Your task to perform on an android device: uninstall "Microsoft Authenticator" Image 0: 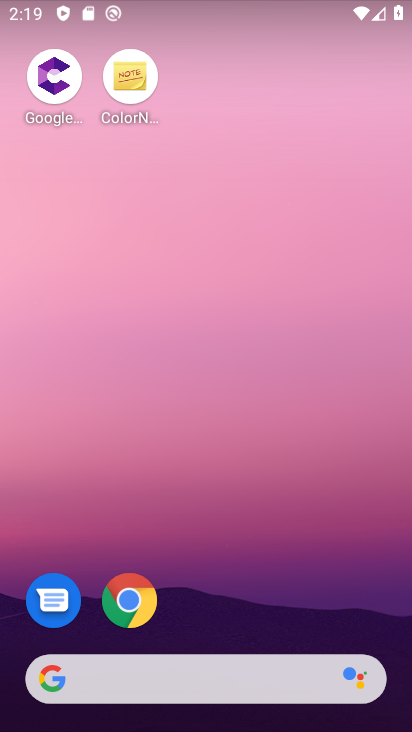
Step 0: drag from (199, 595) to (278, 46)
Your task to perform on an android device: uninstall "Microsoft Authenticator" Image 1: 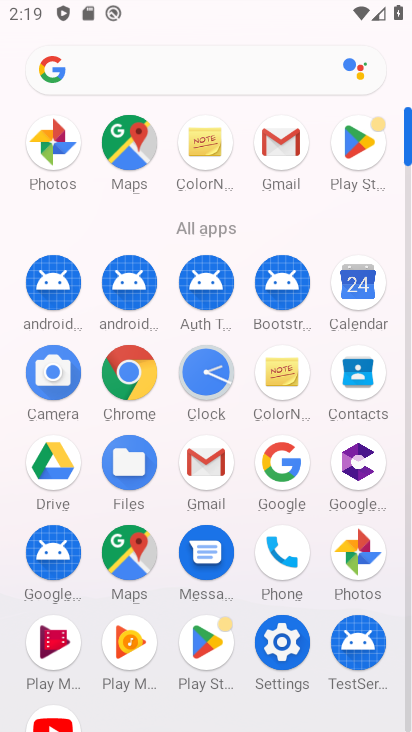
Step 1: click (362, 142)
Your task to perform on an android device: uninstall "Microsoft Authenticator" Image 2: 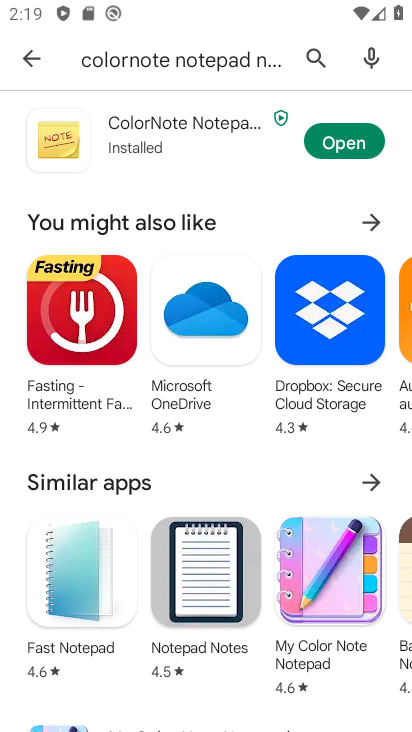
Step 2: click (324, 63)
Your task to perform on an android device: uninstall "Microsoft Authenticator" Image 3: 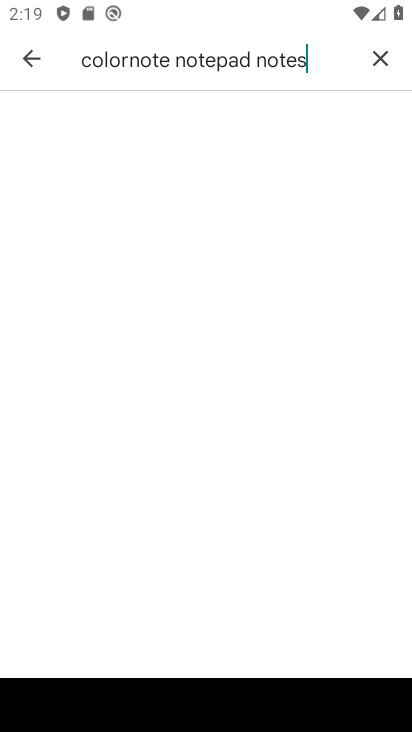
Step 3: click (386, 66)
Your task to perform on an android device: uninstall "Microsoft Authenticator" Image 4: 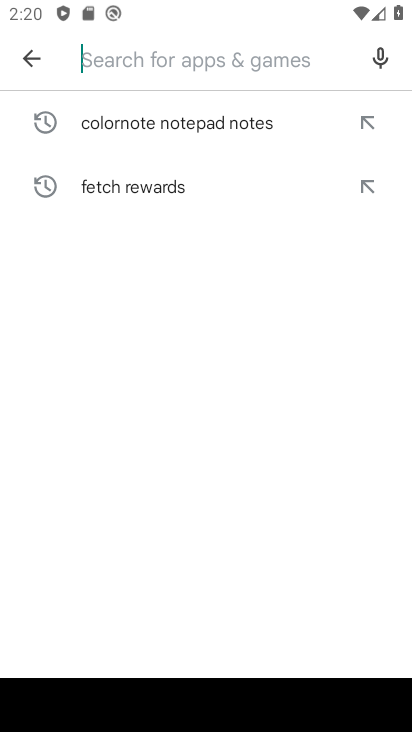
Step 4: click (155, 59)
Your task to perform on an android device: uninstall "Microsoft Authenticator" Image 5: 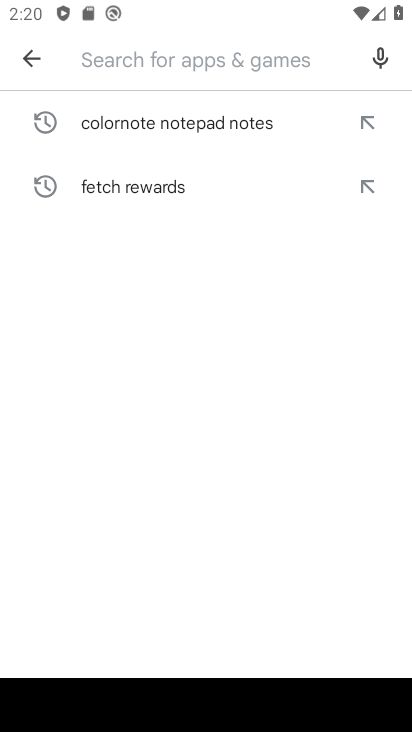
Step 5: type "Microsoft Authenticator"
Your task to perform on an android device: uninstall "Microsoft Authenticator" Image 6: 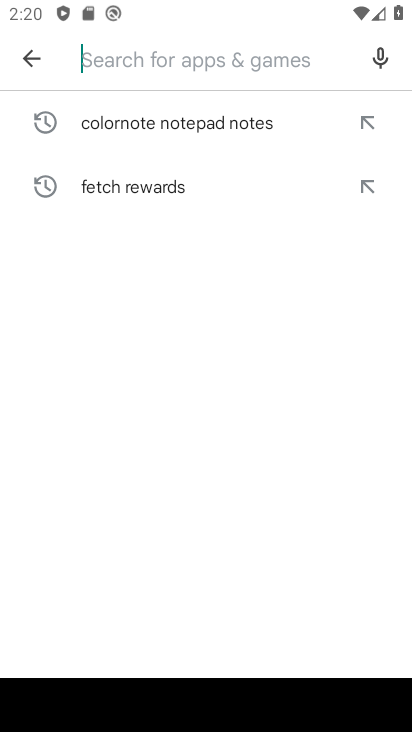
Step 6: click (213, 473)
Your task to perform on an android device: uninstall "Microsoft Authenticator" Image 7: 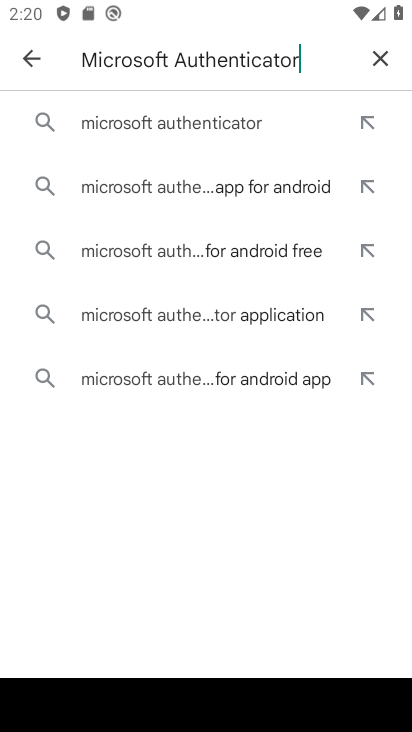
Step 7: click (107, 113)
Your task to perform on an android device: uninstall "Microsoft Authenticator" Image 8: 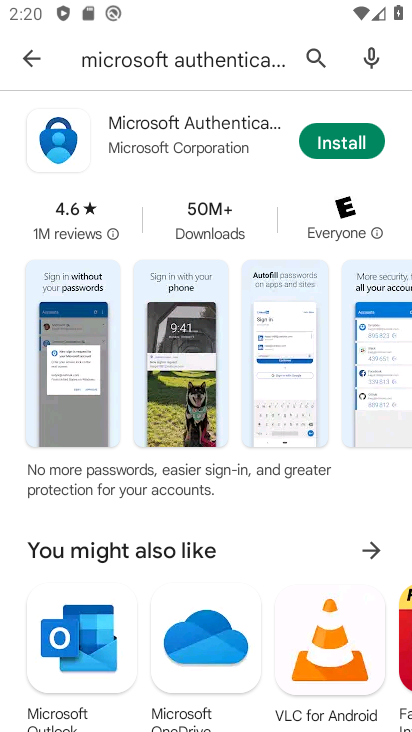
Step 8: click (177, 122)
Your task to perform on an android device: uninstall "Microsoft Authenticator" Image 9: 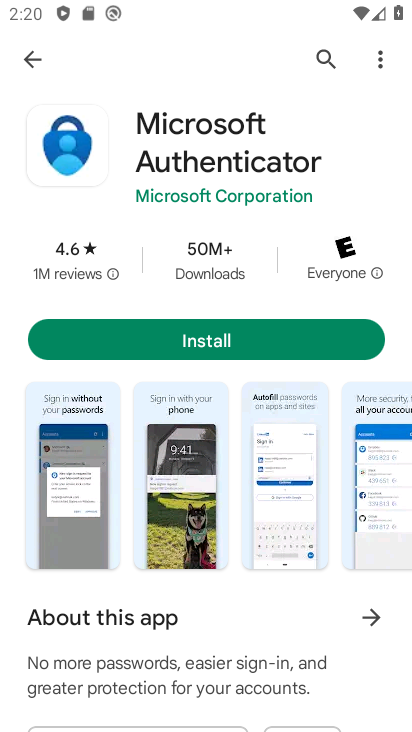
Step 9: task complete